Your task to perform on an android device: see tabs open on other devices in the chrome app Image 0: 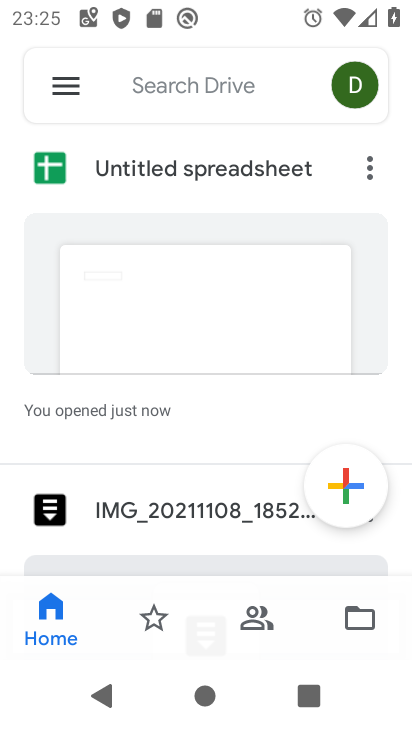
Step 0: press home button
Your task to perform on an android device: see tabs open on other devices in the chrome app Image 1: 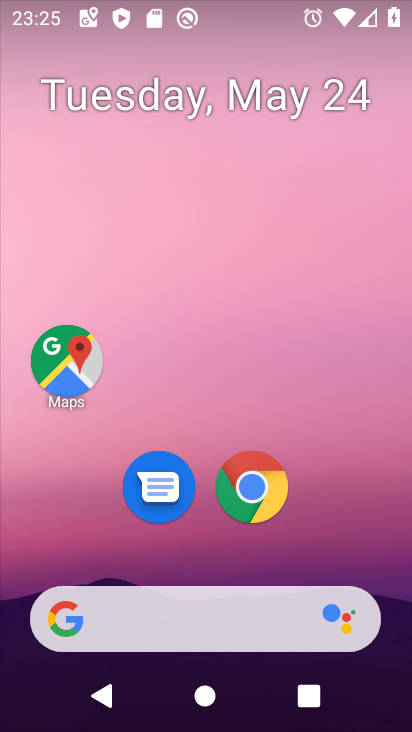
Step 1: click (249, 503)
Your task to perform on an android device: see tabs open on other devices in the chrome app Image 2: 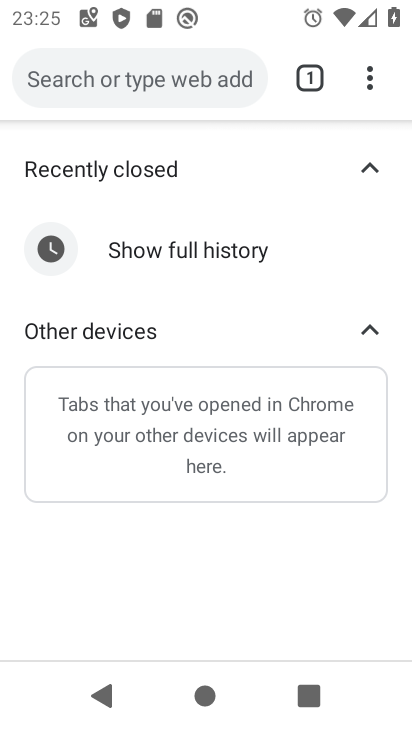
Step 2: task complete